Your task to perform on an android device: Go to ESPN.com Image 0: 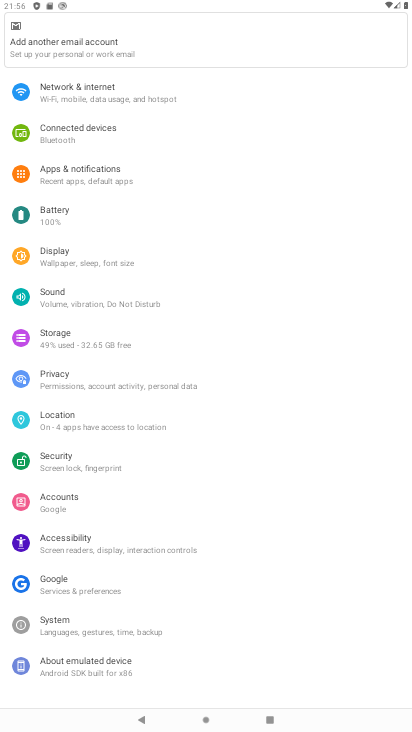
Step 0: press home button
Your task to perform on an android device: Go to ESPN.com Image 1: 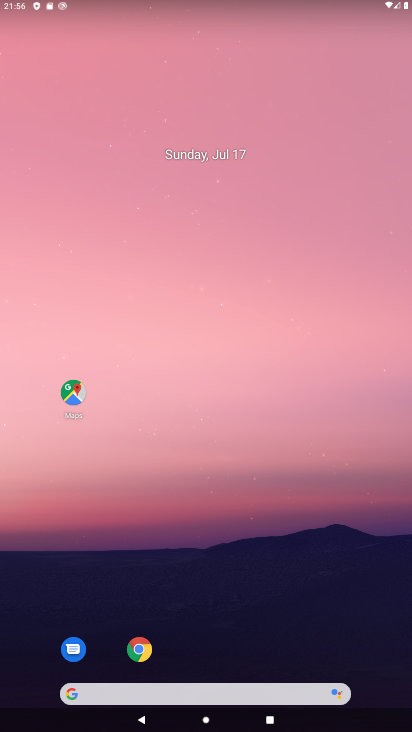
Step 1: click (105, 692)
Your task to perform on an android device: Go to ESPN.com Image 2: 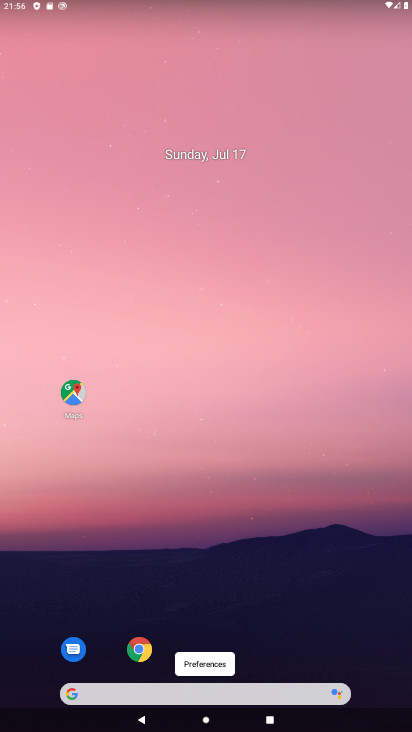
Step 2: click (112, 700)
Your task to perform on an android device: Go to ESPN.com Image 3: 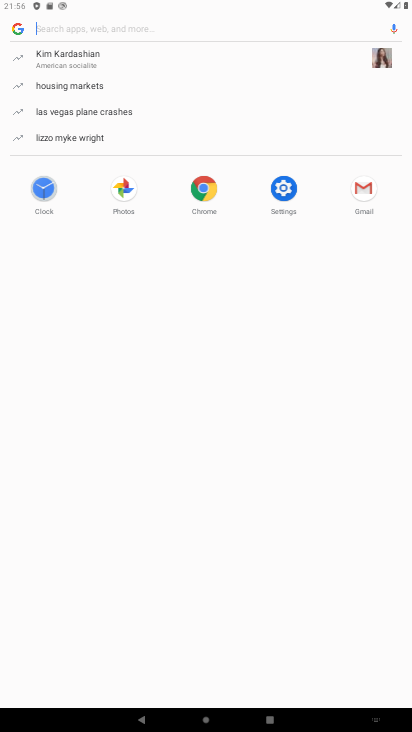
Step 3: type "ESPN.com"
Your task to perform on an android device: Go to ESPN.com Image 4: 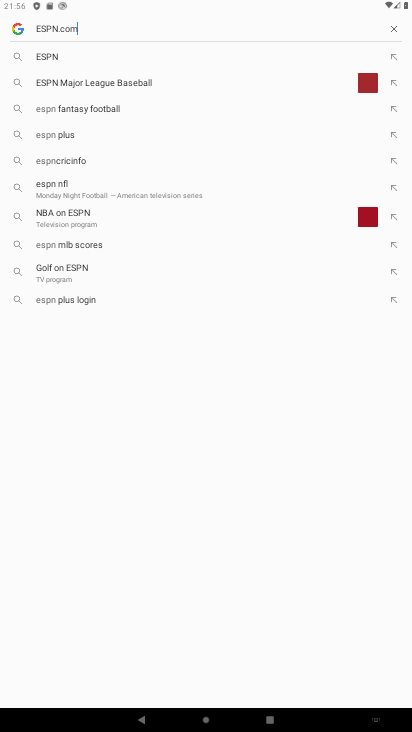
Step 4: type ""
Your task to perform on an android device: Go to ESPN.com Image 5: 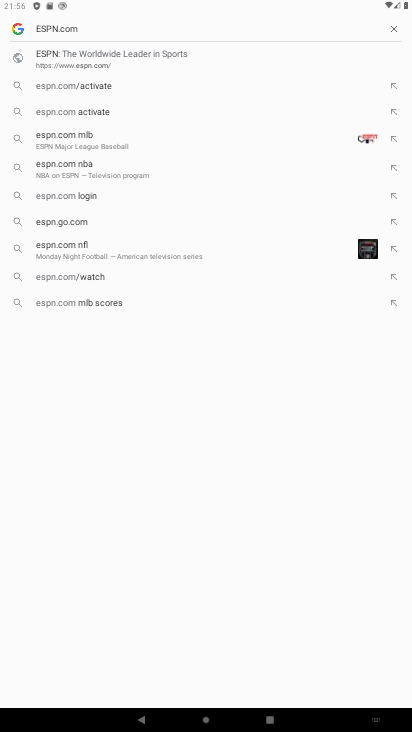
Step 5: click (38, 56)
Your task to perform on an android device: Go to ESPN.com Image 6: 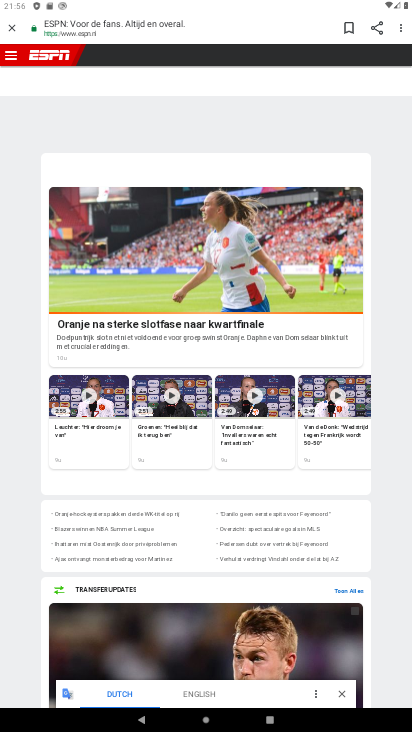
Step 6: task complete